Your task to perform on an android device: make emails show in primary in the gmail app Image 0: 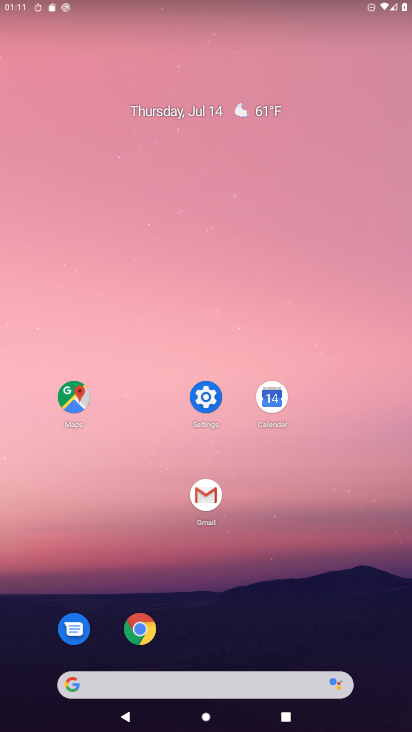
Step 0: click (202, 504)
Your task to perform on an android device: make emails show in primary in the gmail app Image 1: 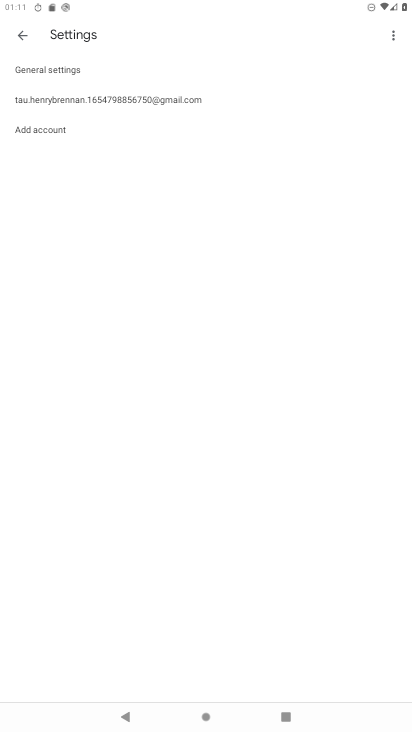
Step 1: click (47, 104)
Your task to perform on an android device: make emails show in primary in the gmail app Image 2: 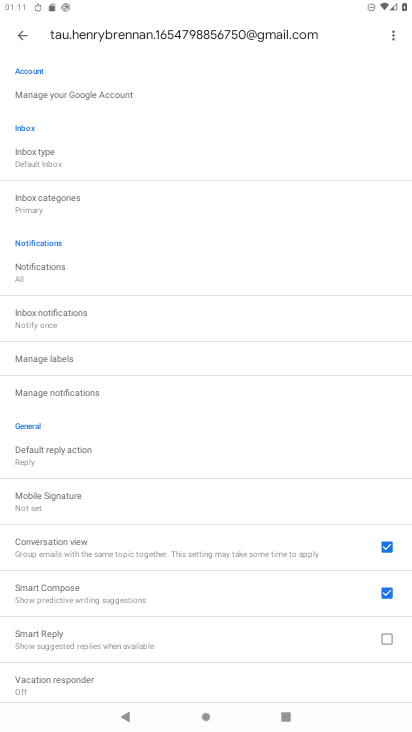
Step 2: click (34, 158)
Your task to perform on an android device: make emails show in primary in the gmail app Image 3: 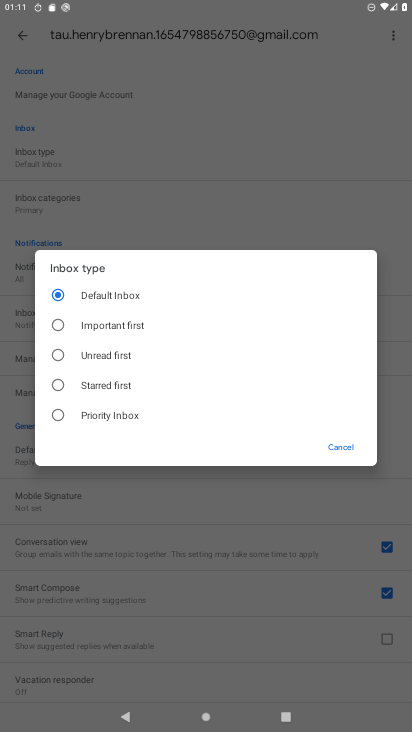
Step 3: click (90, 165)
Your task to perform on an android device: make emails show in primary in the gmail app Image 4: 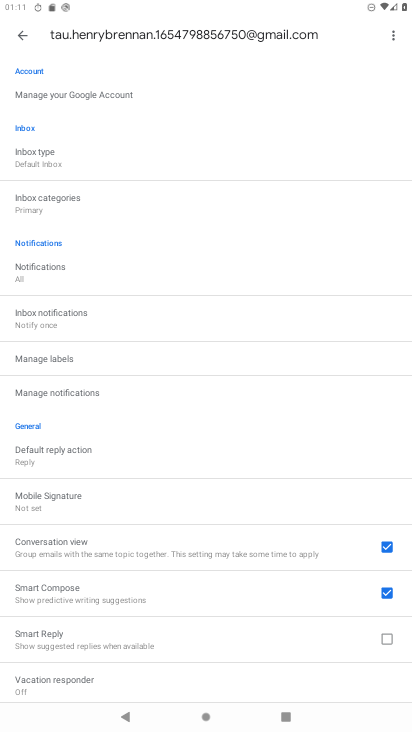
Step 4: click (34, 168)
Your task to perform on an android device: make emails show in primary in the gmail app Image 5: 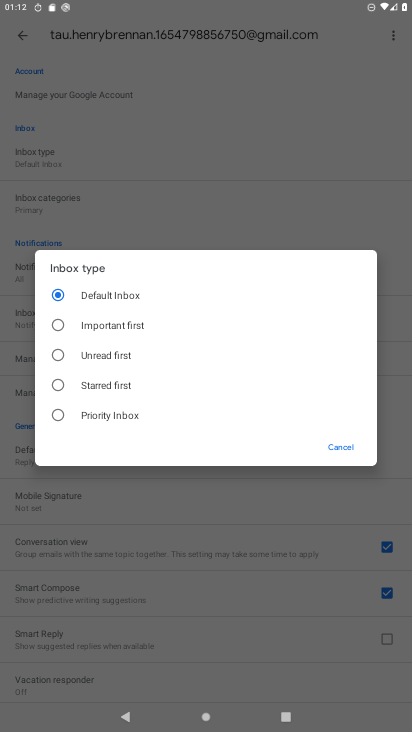
Step 5: click (72, 414)
Your task to perform on an android device: make emails show in primary in the gmail app Image 6: 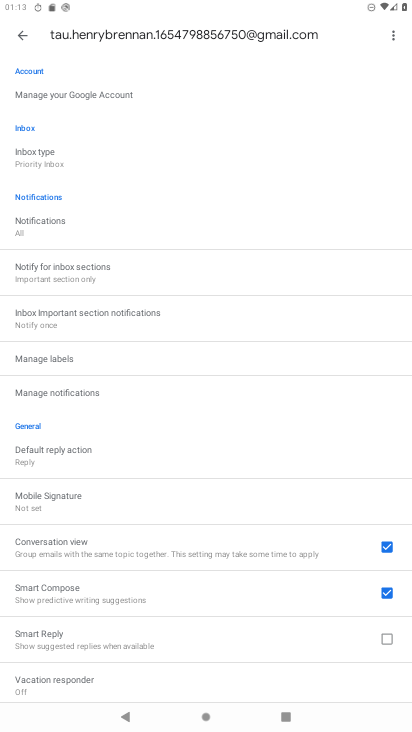
Step 6: task complete